Your task to perform on an android device: turn pop-ups on in chrome Image 0: 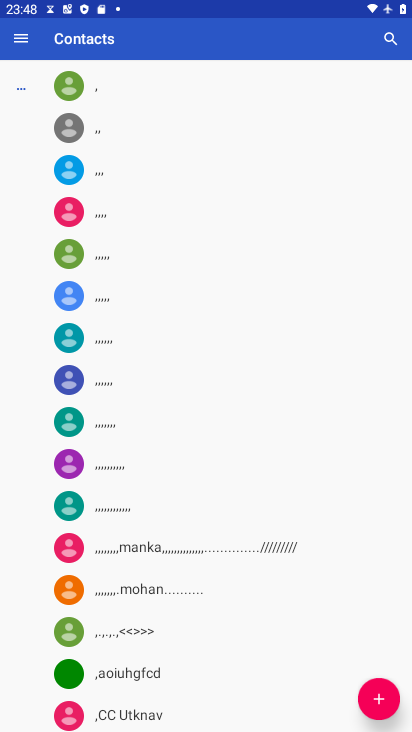
Step 0: press home button
Your task to perform on an android device: turn pop-ups on in chrome Image 1: 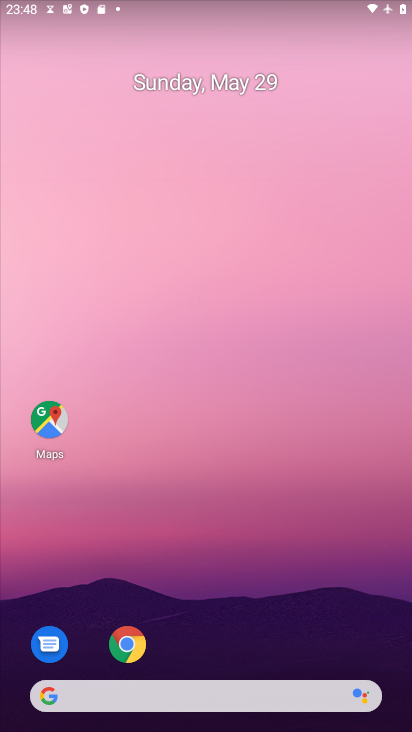
Step 1: drag from (186, 636) to (175, 189)
Your task to perform on an android device: turn pop-ups on in chrome Image 2: 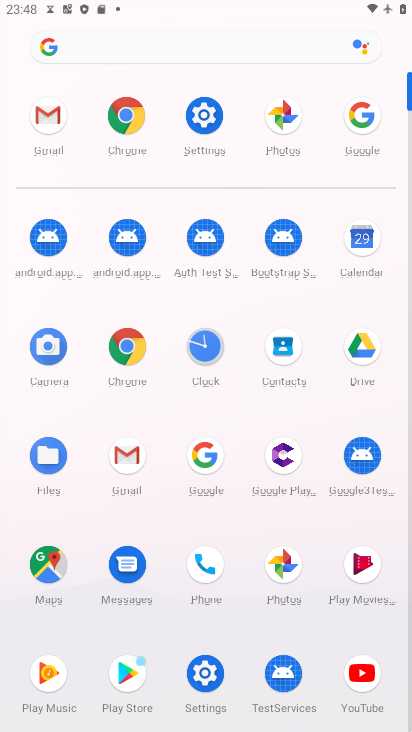
Step 2: click (126, 345)
Your task to perform on an android device: turn pop-ups on in chrome Image 3: 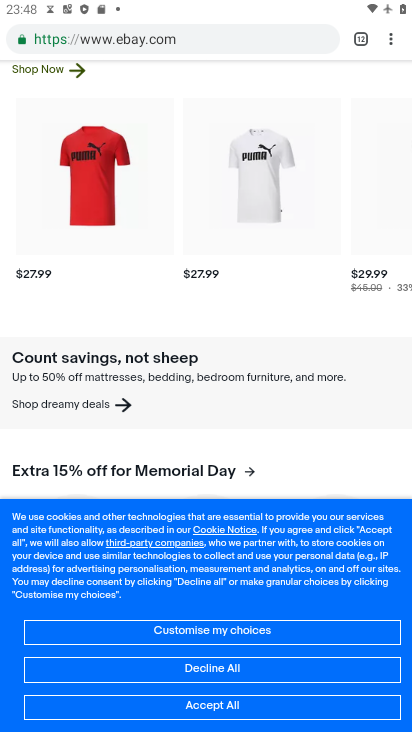
Step 3: click (389, 38)
Your task to perform on an android device: turn pop-ups on in chrome Image 4: 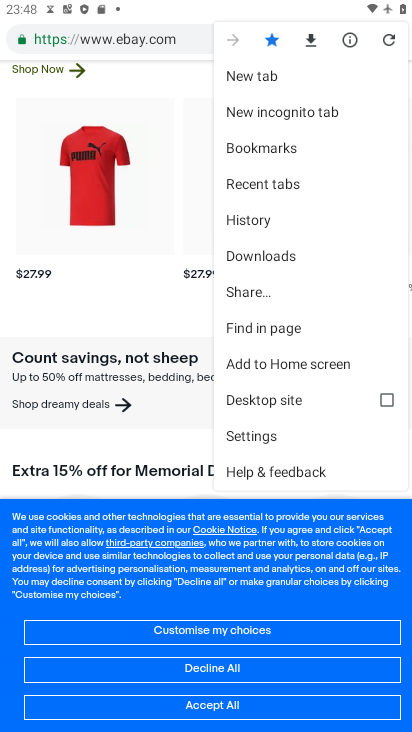
Step 4: click (282, 425)
Your task to perform on an android device: turn pop-ups on in chrome Image 5: 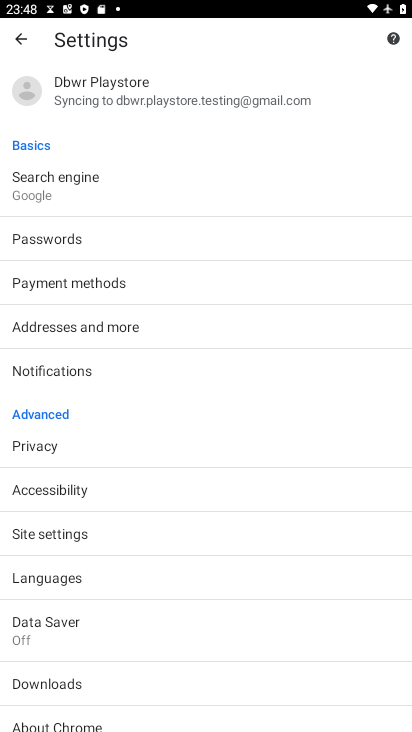
Step 5: drag from (197, 615) to (210, 304)
Your task to perform on an android device: turn pop-ups on in chrome Image 6: 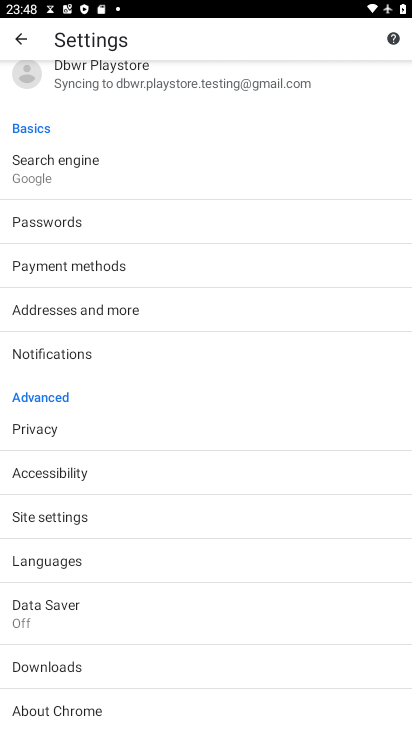
Step 6: click (94, 514)
Your task to perform on an android device: turn pop-ups on in chrome Image 7: 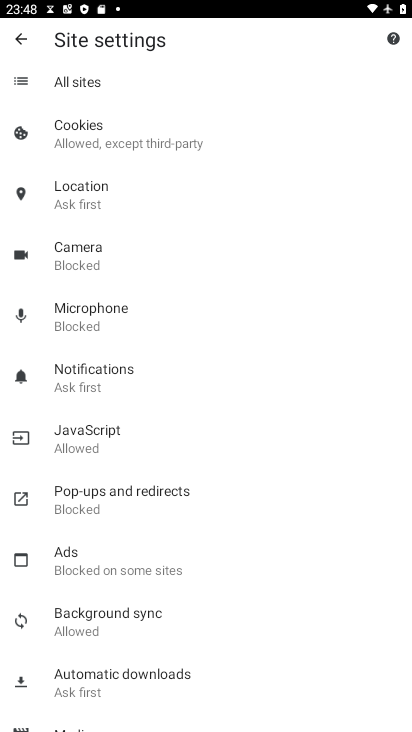
Step 7: click (100, 502)
Your task to perform on an android device: turn pop-ups on in chrome Image 8: 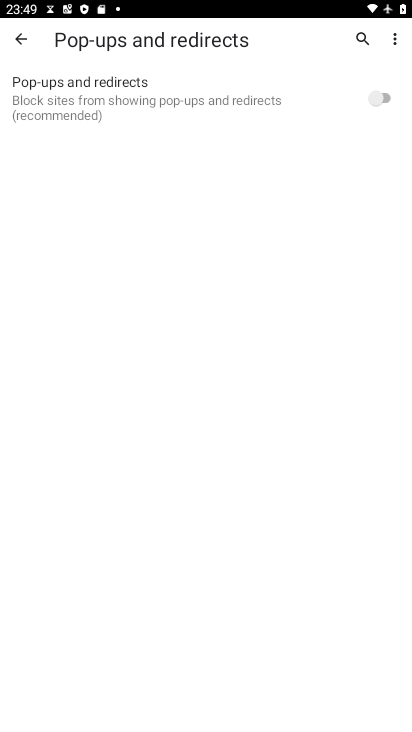
Step 8: click (370, 97)
Your task to perform on an android device: turn pop-ups on in chrome Image 9: 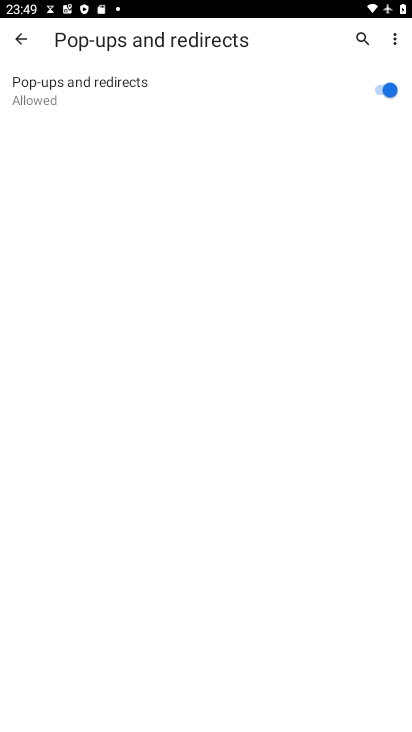
Step 9: task complete